Your task to perform on an android device: Open calendar and show me the fourth week of next month Image 0: 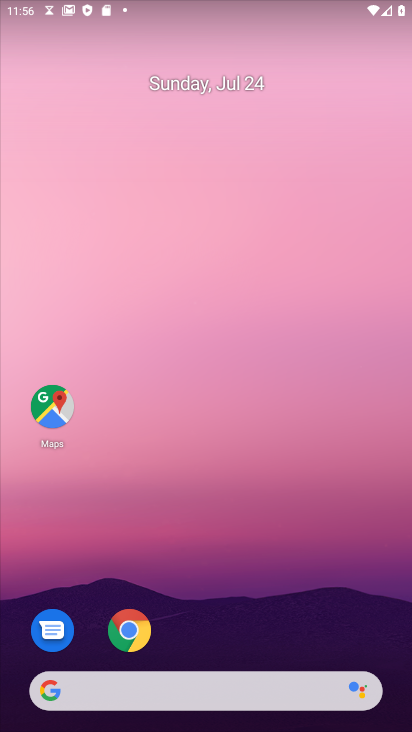
Step 0: press home button
Your task to perform on an android device: Open calendar and show me the fourth week of next month Image 1: 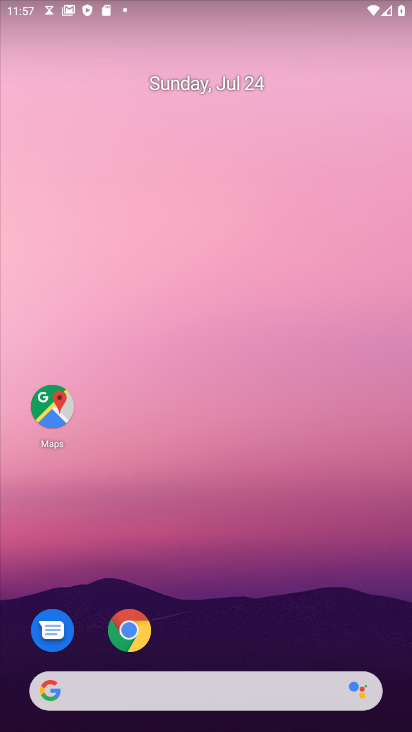
Step 1: drag from (189, 258) to (199, 134)
Your task to perform on an android device: Open calendar and show me the fourth week of next month Image 2: 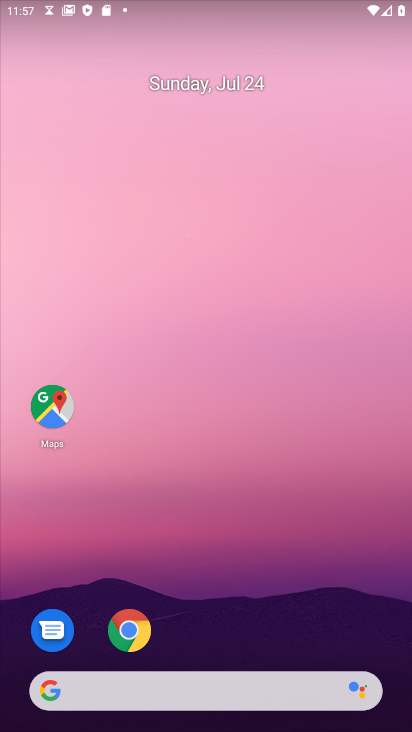
Step 2: press home button
Your task to perform on an android device: Open calendar and show me the fourth week of next month Image 3: 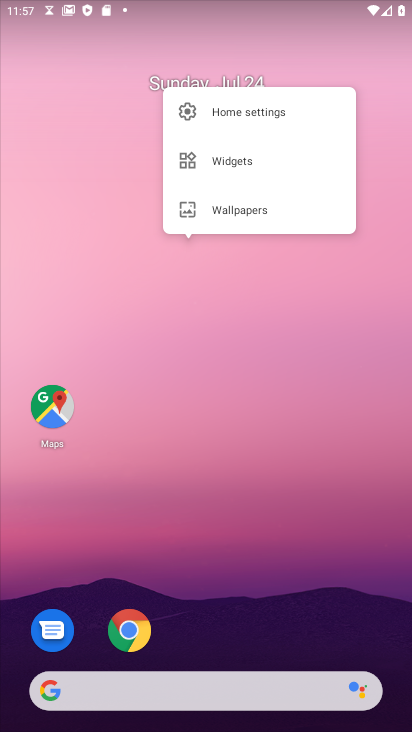
Step 3: click (245, 117)
Your task to perform on an android device: Open calendar and show me the fourth week of next month Image 4: 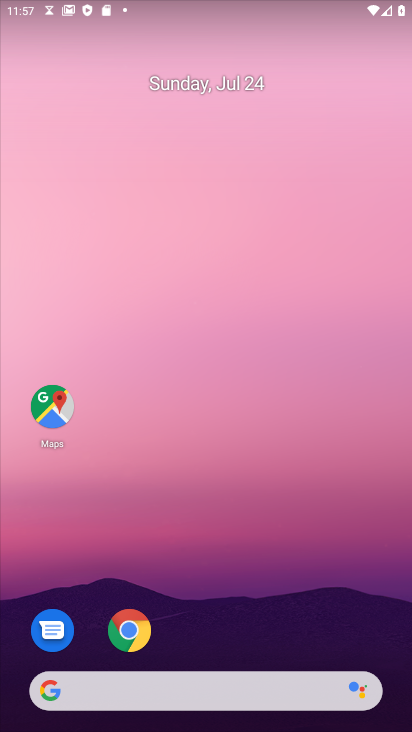
Step 4: drag from (280, 276) to (197, 24)
Your task to perform on an android device: Open calendar and show me the fourth week of next month Image 5: 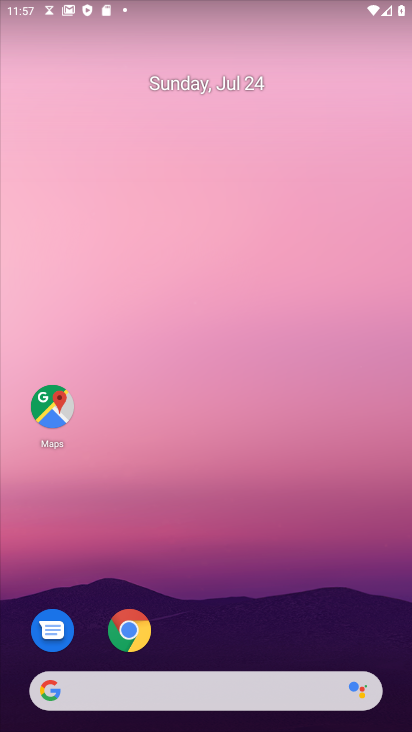
Step 5: click (248, 107)
Your task to perform on an android device: Open calendar and show me the fourth week of next month Image 6: 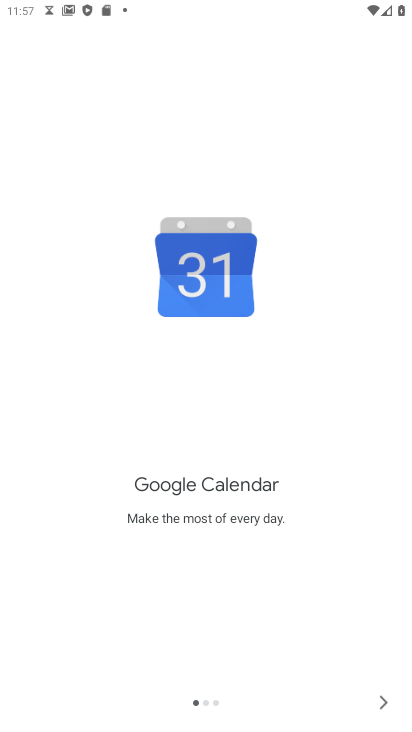
Step 6: click (377, 701)
Your task to perform on an android device: Open calendar and show me the fourth week of next month Image 7: 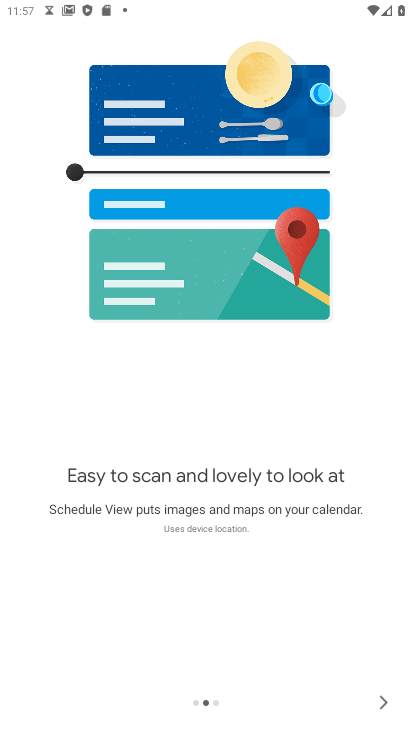
Step 7: click (378, 700)
Your task to perform on an android device: Open calendar and show me the fourth week of next month Image 8: 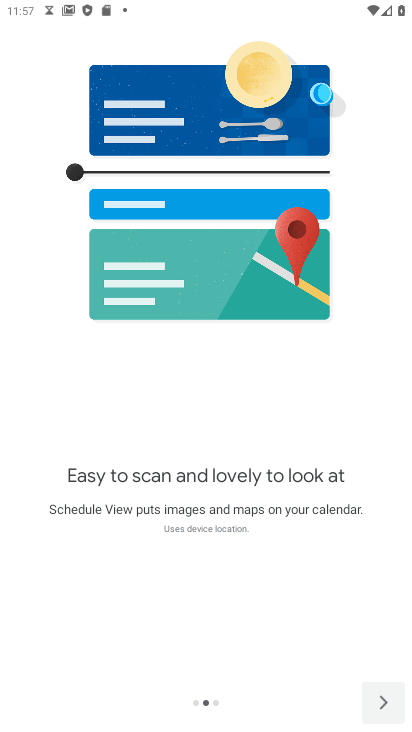
Step 8: click (379, 698)
Your task to perform on an android device: Open calendar and show me the fourth week of next month Image 9: 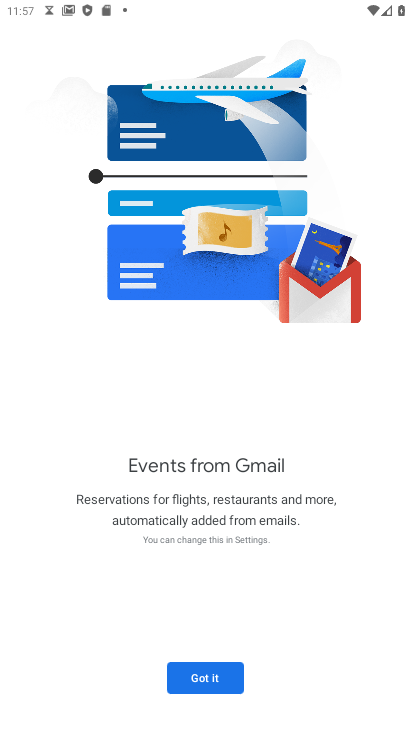
Step 9: click (219, 678)
Your task to perform on an android device: Open calendar and show me the fourth week of next month Image 10: 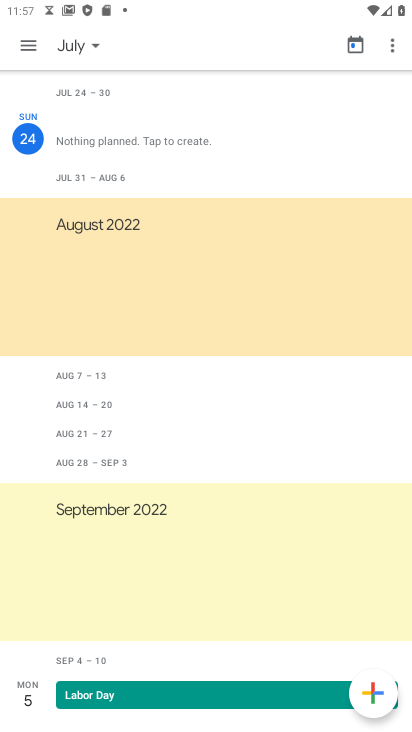
Step 10: click (27, 41)
Your task to perform on an android device: Open calendar and show me the fourth week of next month Image 11: 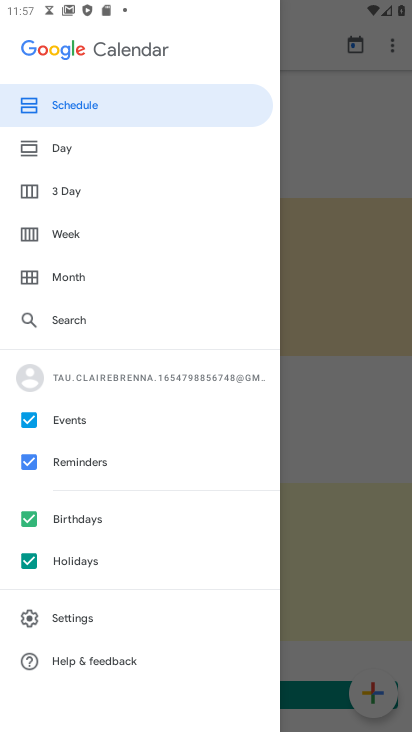
Step 11: click (91, 266)
Your task to perform on an android device: Open calendar and show me the fourth week of next month Image 12: 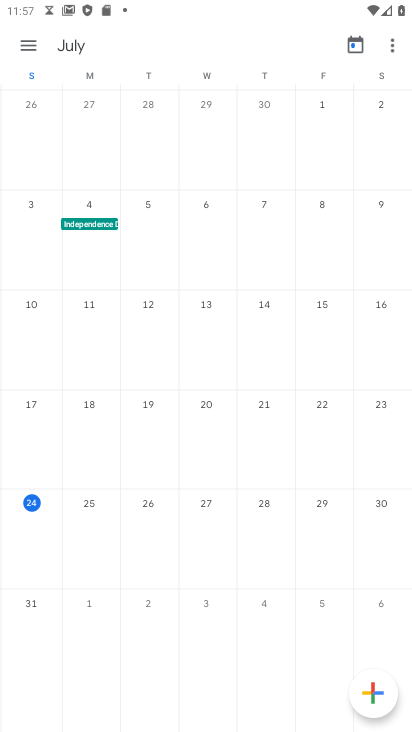
Step 12: task complete